Your task to perform on an android device: install app "Duolingo: language lessons" Image 0: 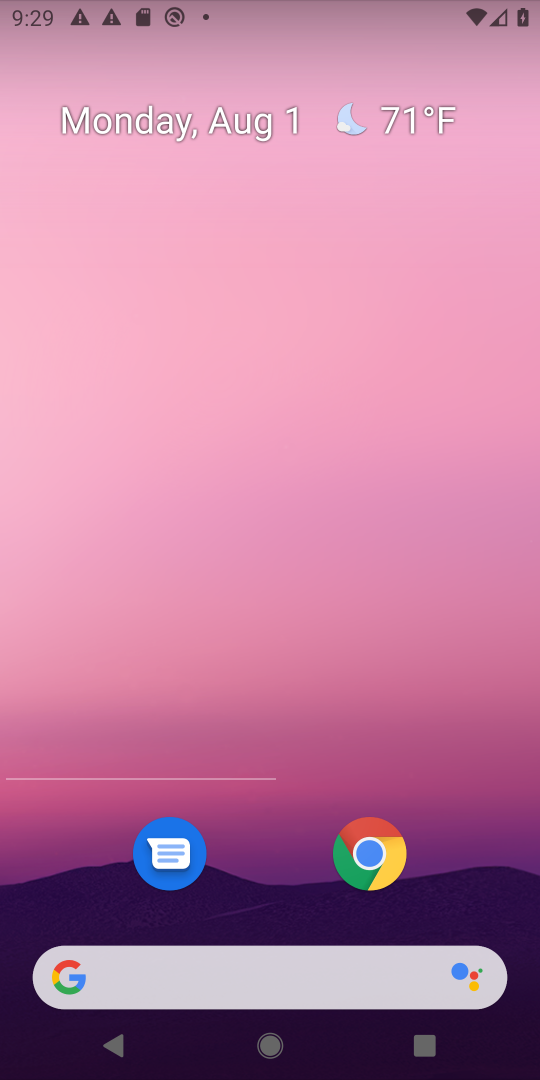
Step 0: click (519, 603)
Your task to perform on an android device: install app "Duolingo: language lessons" Image 1: 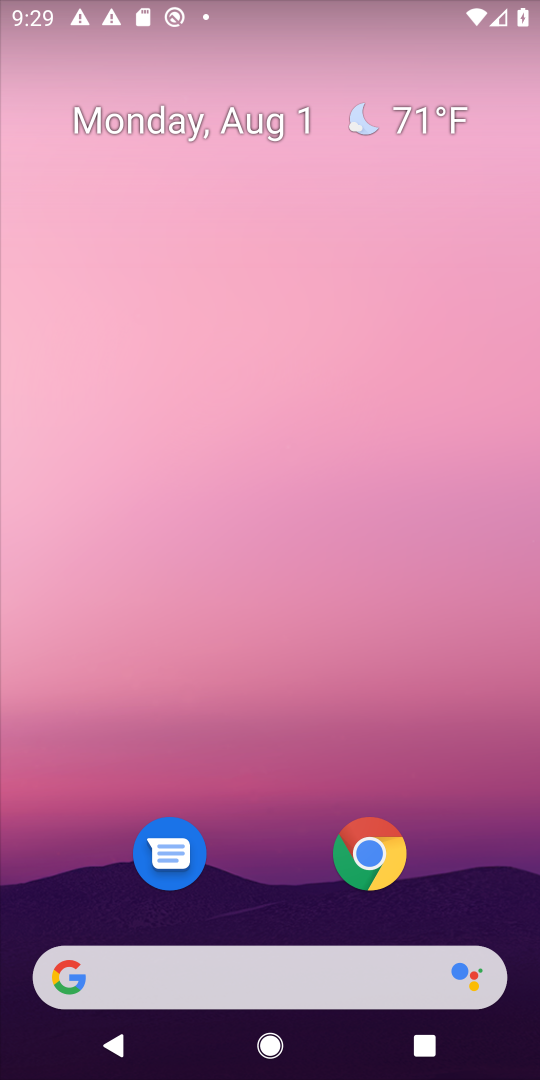
Step 1: press home button
Your task to perform on an android device: install app "Duolingo: language lessons" Image 2: 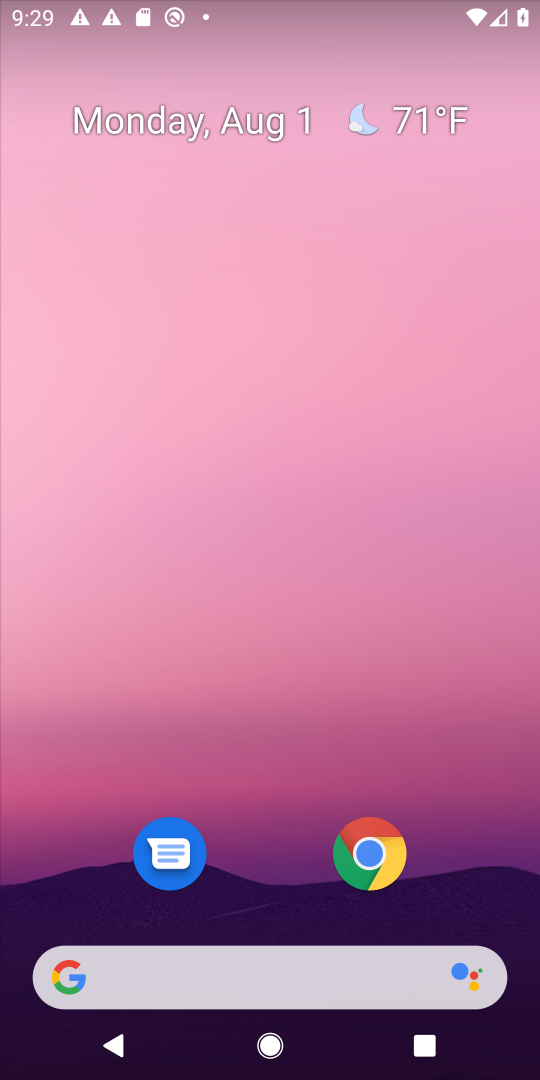
Step 2: drag from (270, 932) to (385, 175)
Your task to perform on an android device: install app "Duolingo: language lessons" Image 3: 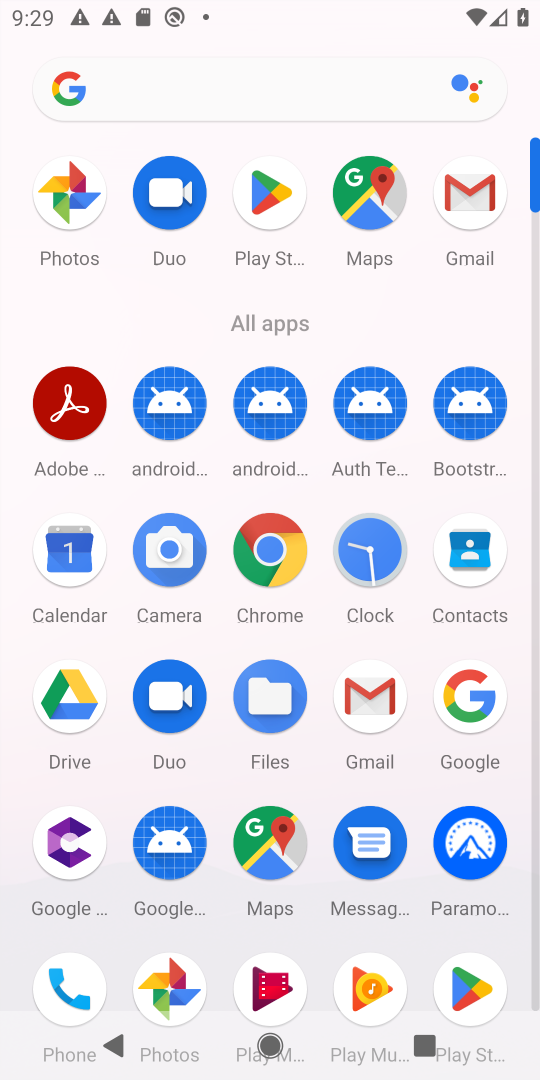
Step 3: click (273, 199)
Your task to perform on an android device: install app "Duolingo: language lessons" Image 4: 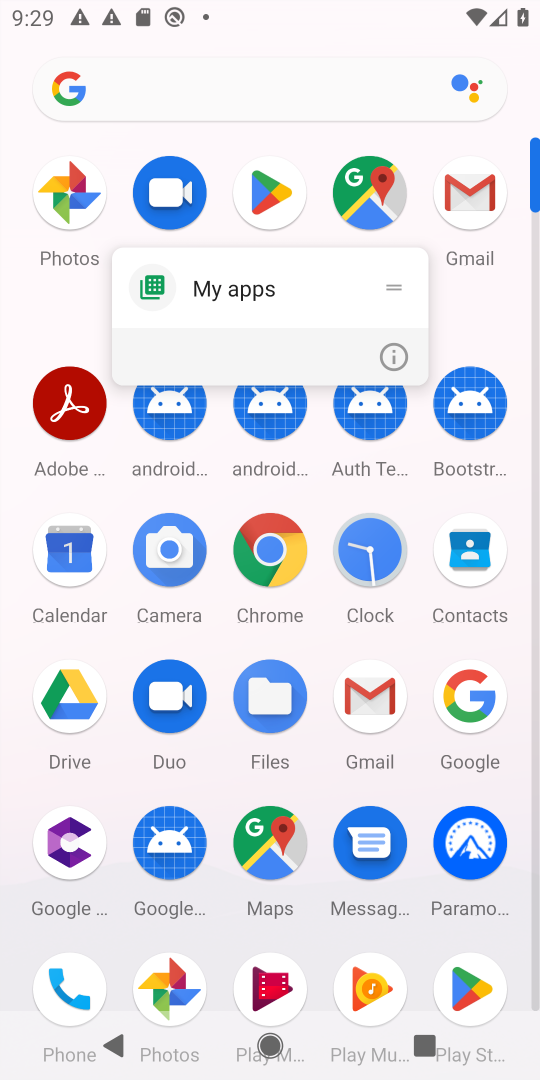
Step 4: click (393, 357)
Your task to perform on an android device: install app "Duolingo: language lessons" Image 5: 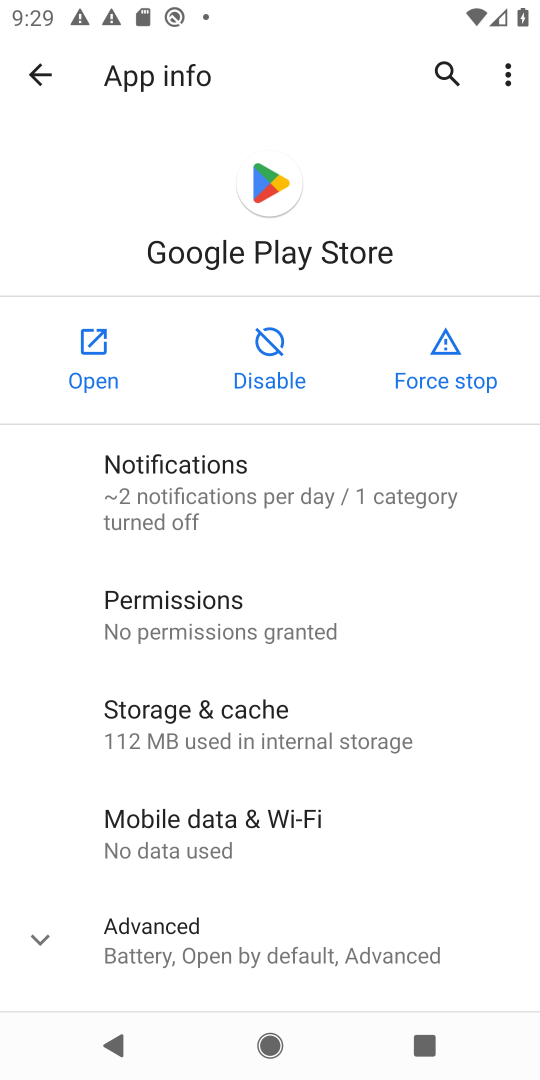
Step 5: click (95, 350)
Your task to perform on an android device: install app "Duolingo: language lessons" Image 6: 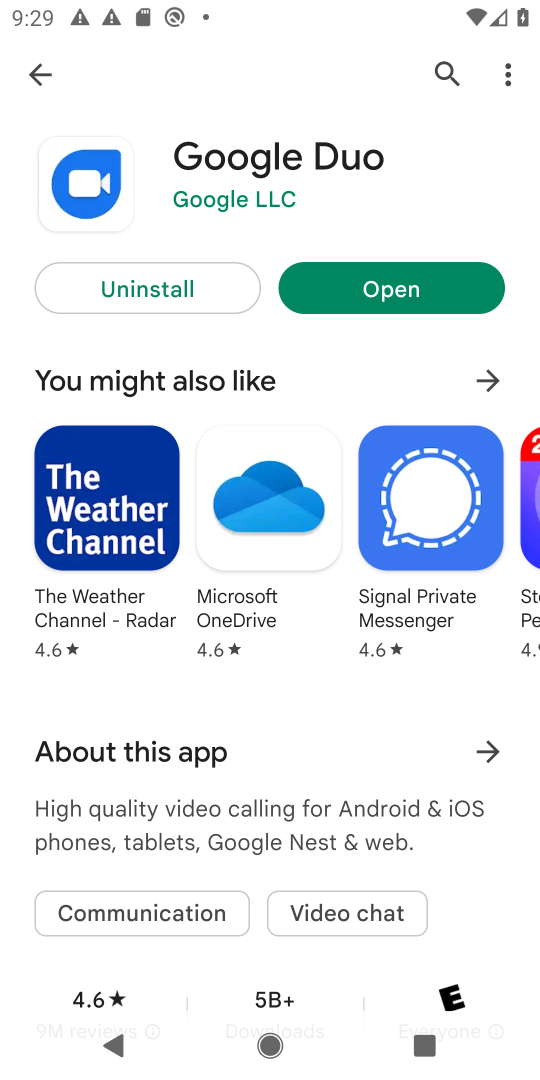
Step 6: click (42, 76)
Your task to perform on an android device: install app "Duolingo: language lessons" Image 7: 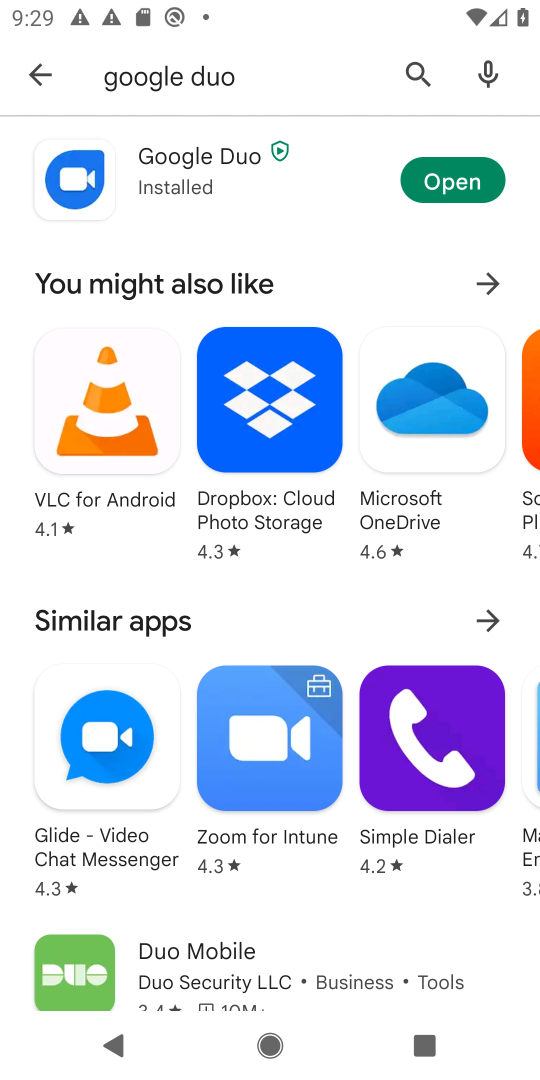
Step 7: click (413, 59)
Your task to perform on an android device: install app "Duolingo: language lessons" Image 8: 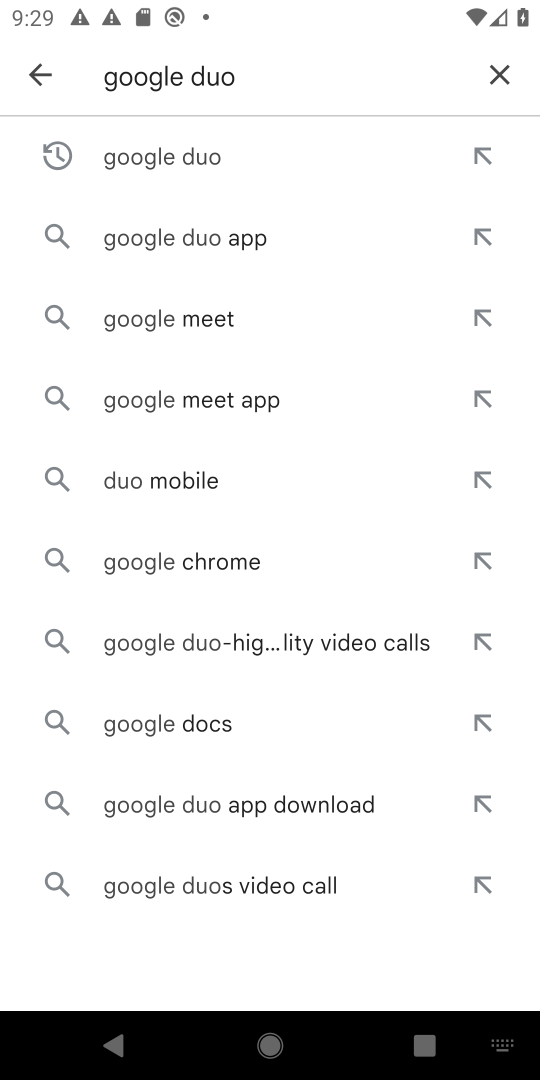
Step 8: click (502, 76)
Your task to perform on an android device: install app "Duolingo: language lessons" Image 9: 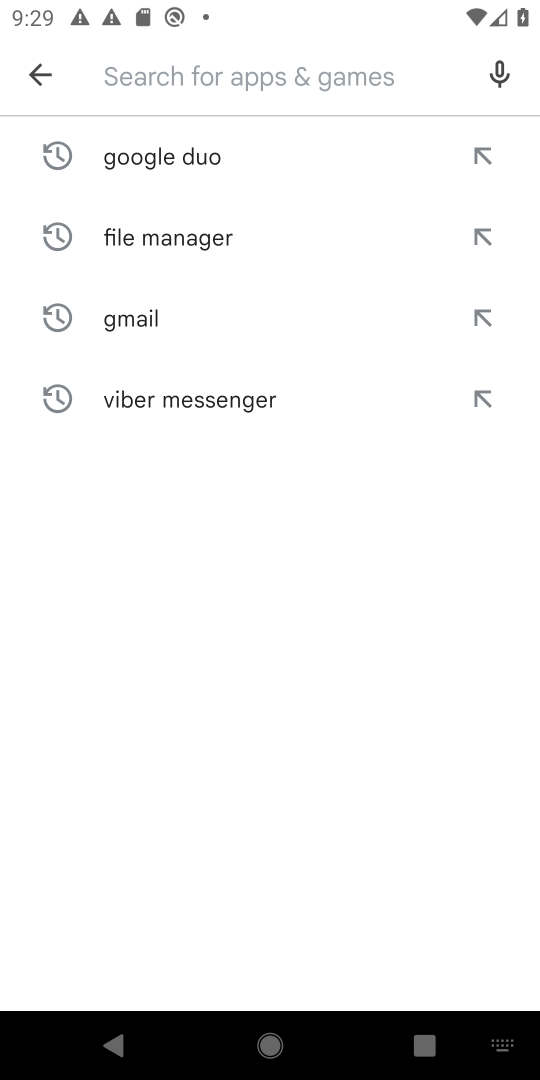
Step 9: type "Duolingo: language lessons"
Your task to perform on an android device: install app "Duolingo: language lessons" Image 10: 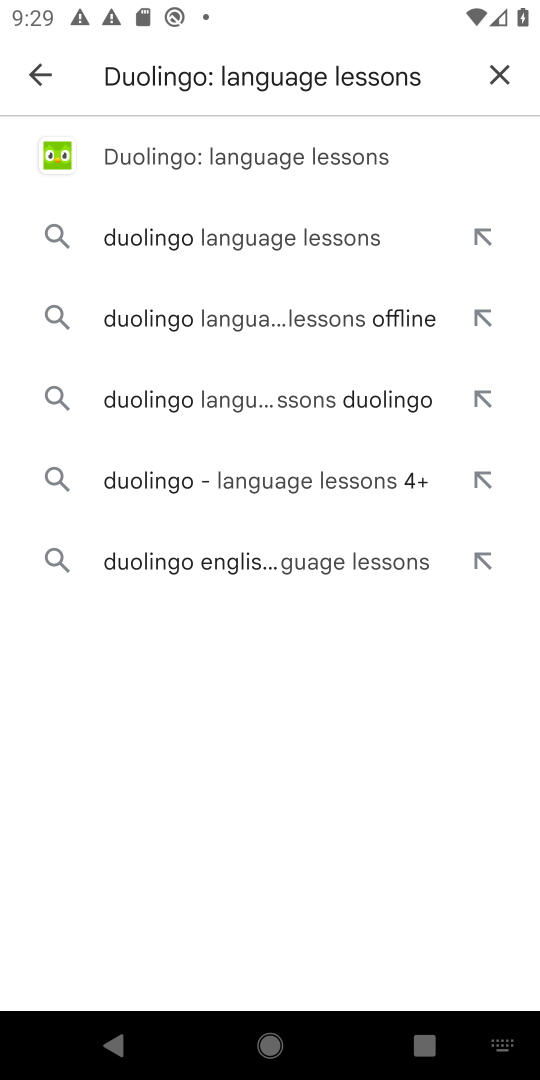
Step 10: click (231, 150)
Your task to perform on an android device: install app "Duolingo: language lessons" Image 11: 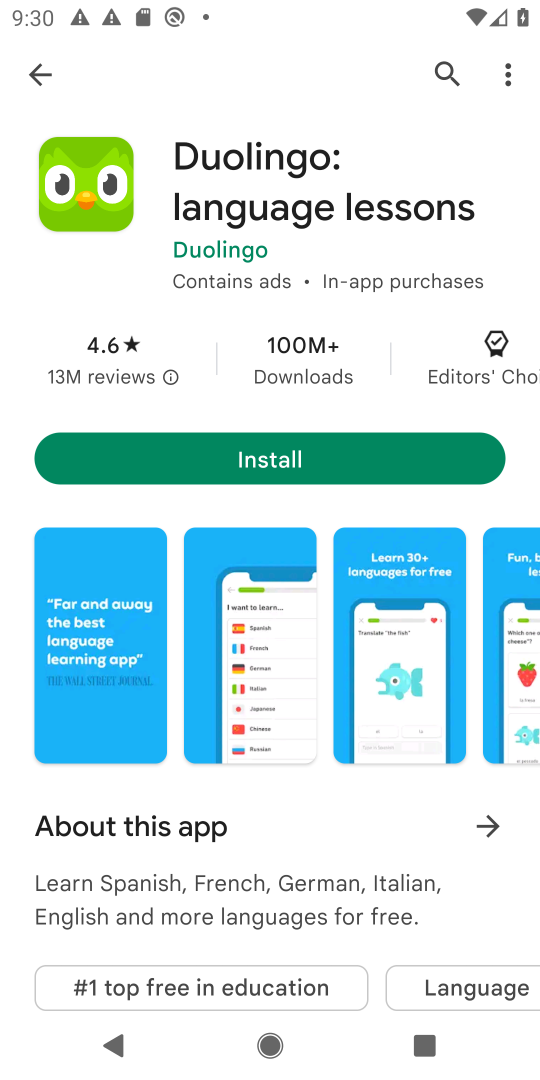
Step 11: click (228, 450)
Your task to perform on an android device: install app "Duolingo: language lessons" Image 12: 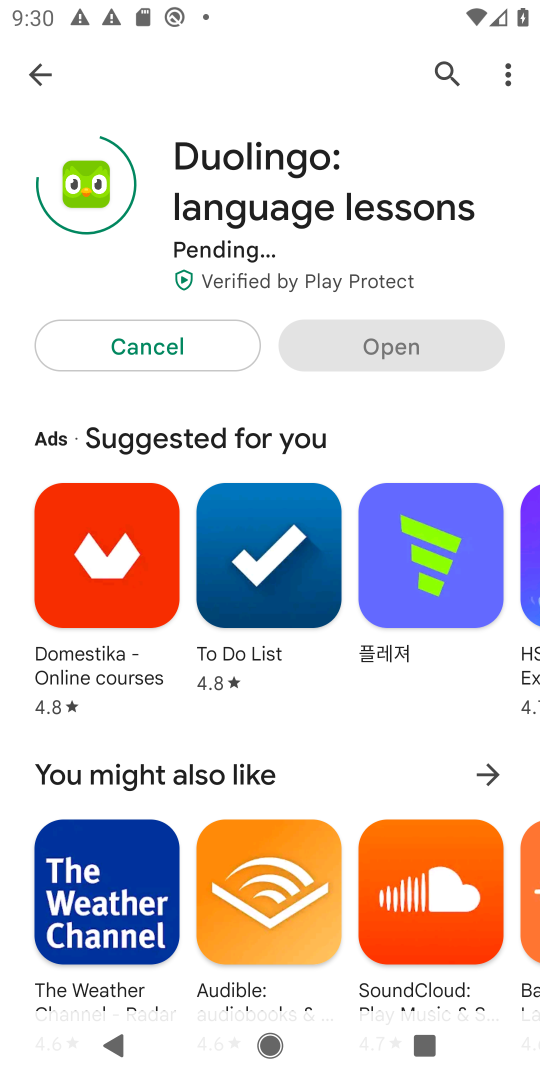
Step 12: drag from (251, 203) to (321, 696)
Your task to perform on an android device: install app "Duolingo: language lessons" Image 13: 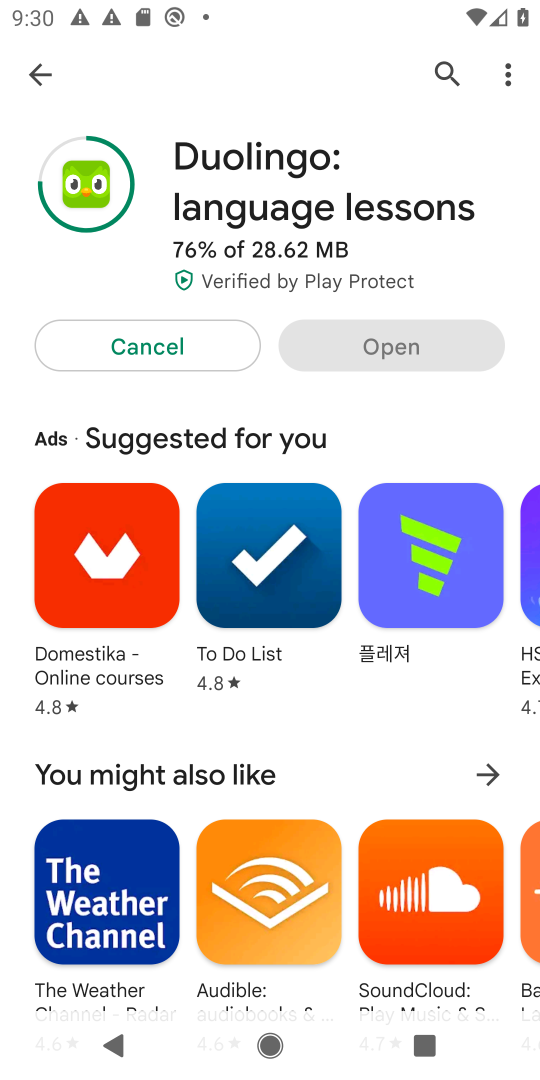
Step 13: click (280, 236)
Your task to perform on an android device: install app "Duolingo: language lessons" Image 14: 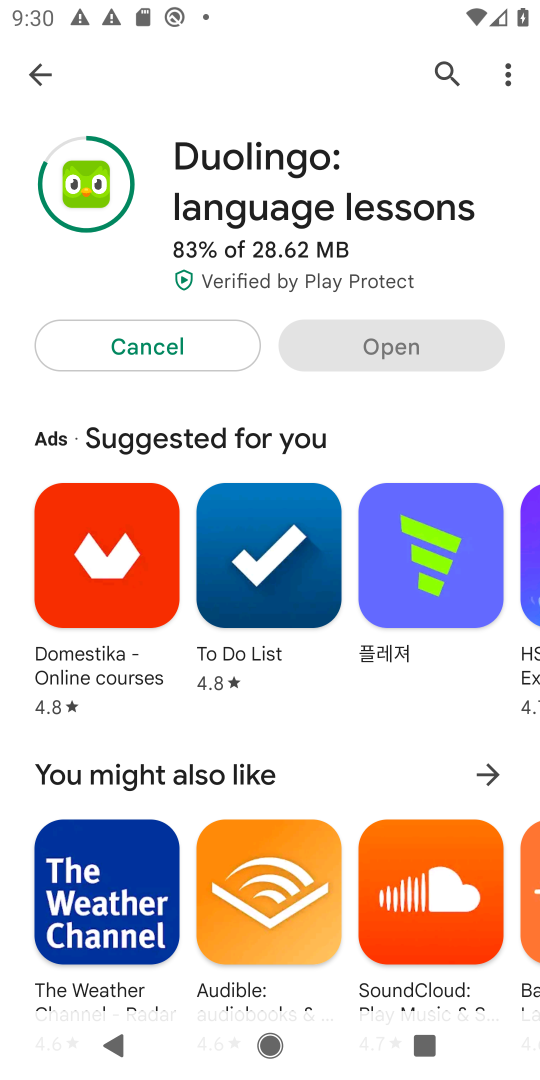
Step 14: click (353, 233)
Your task to perform on an android device: install app "Duolingo: language lessons" Image 15: 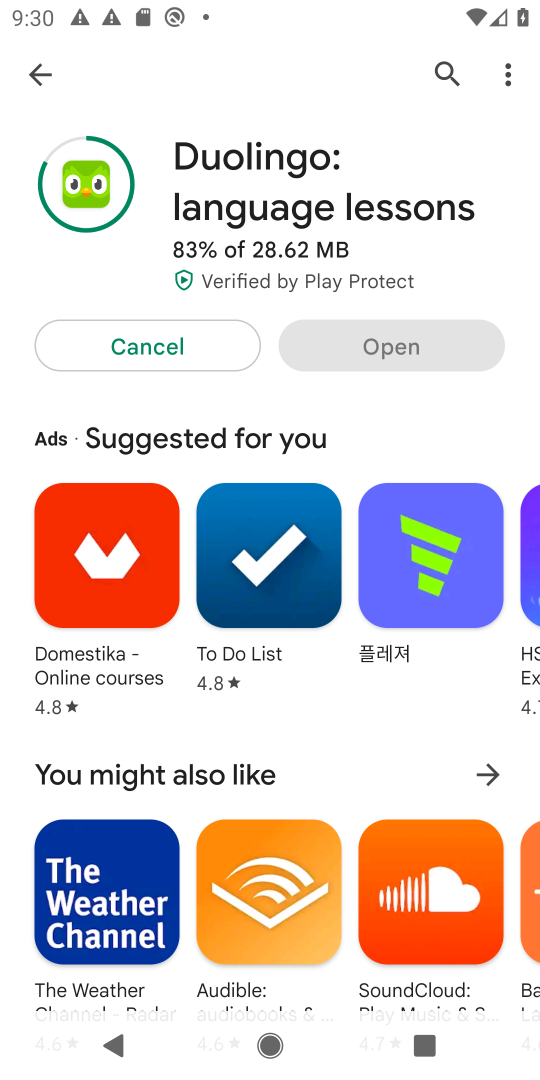
Step 15: click (345, 208)
Your task to perform on an android device: install app "Duolingo: language lessons" Image 16: 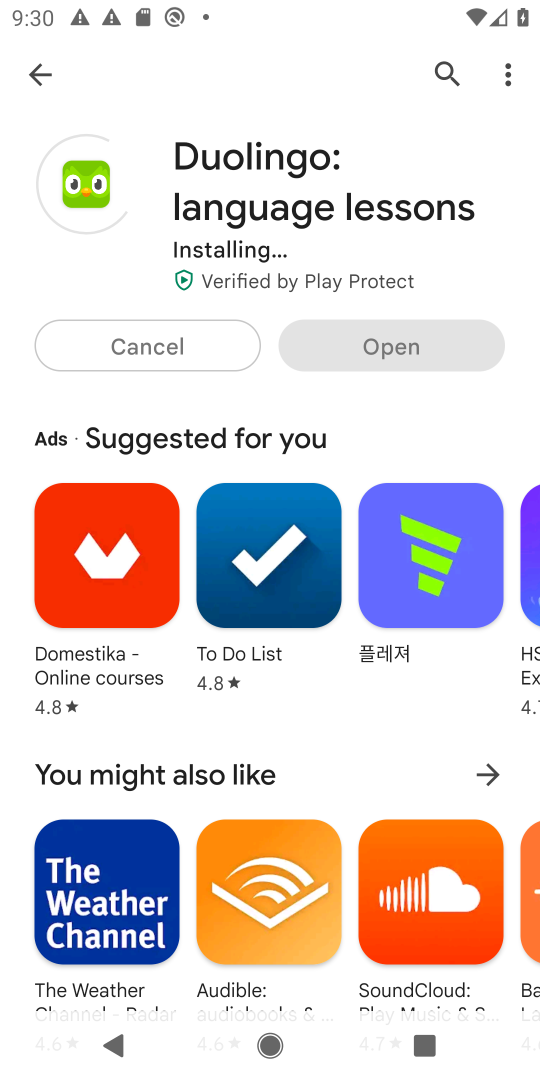
Step 16: task complete